Your task to perform on an android device: turn on bluetooth scan Image 0: 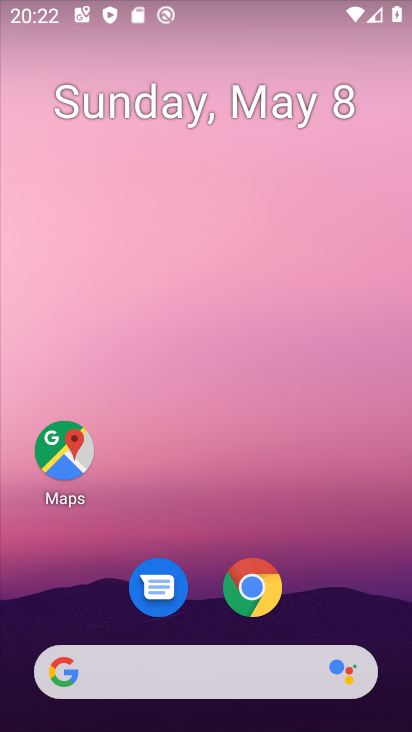
Step 0: drag from (223, 493) to (195, 5)
Your task to perform on an android device: turn on bluetooth scan Image 1: 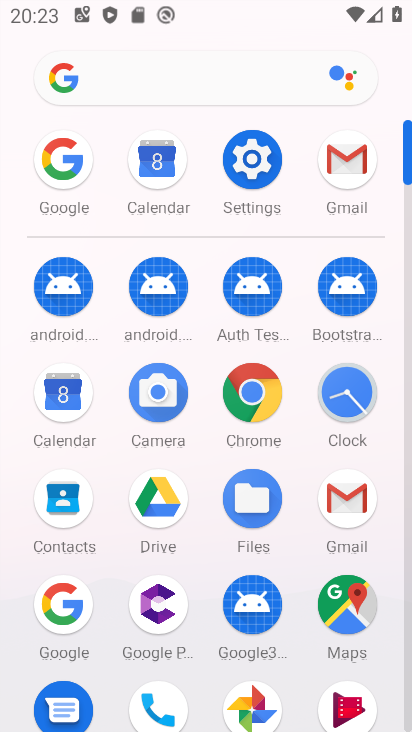
Step 1: click (251, 159)
Your task to perform on an android device: turn on bluetooth scan Image 2: 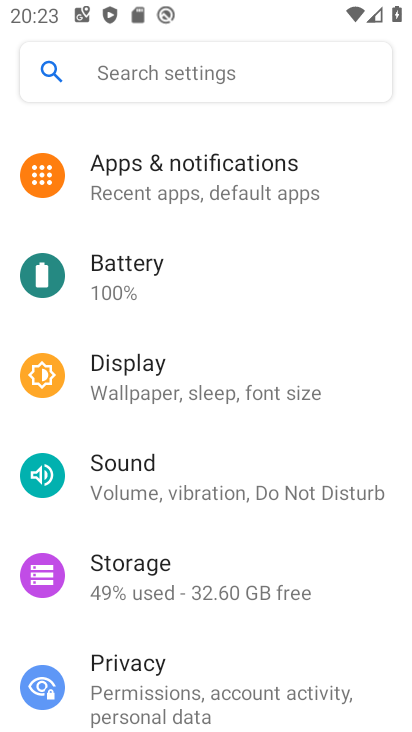
Step 2: drag from (162, 439) to (201, 325)
Your task to perform on an android device: turn on bluetooth scan Image 3: 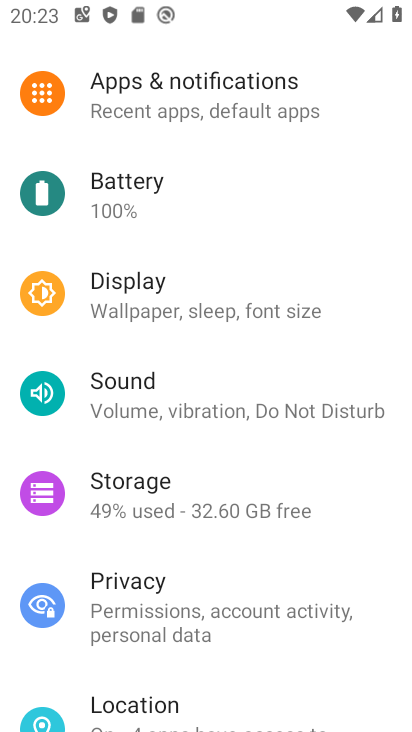
Step 3: drag from (183, 538) to (226, 462)
Your task to perform on an android device: turn on bluetooth scan Image 4: 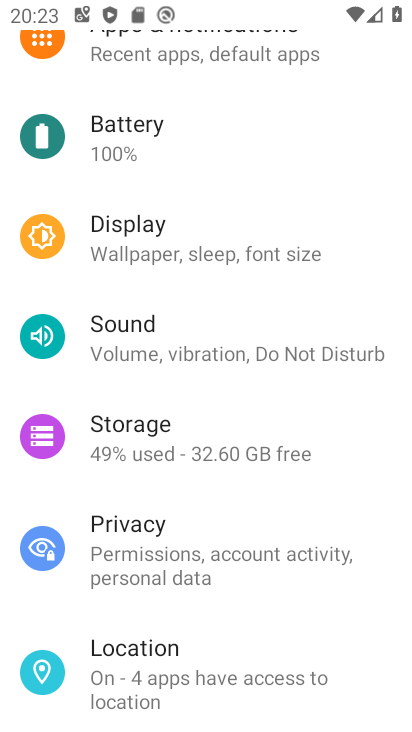
Step 4: drag from (203, 499) to (279, 390)
Your task to perform on an android device: turn on bluetooth scan Image 5: 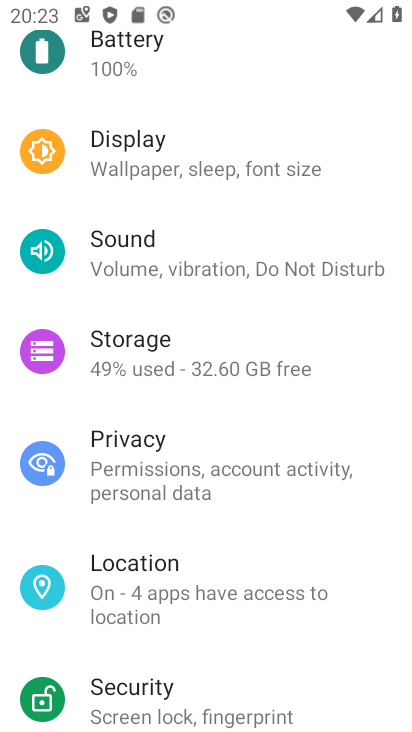
Step 5: drag from (187, 627) to (266, 505)
Your task to perform on an android device: turn on bluetooth scan Image 6: 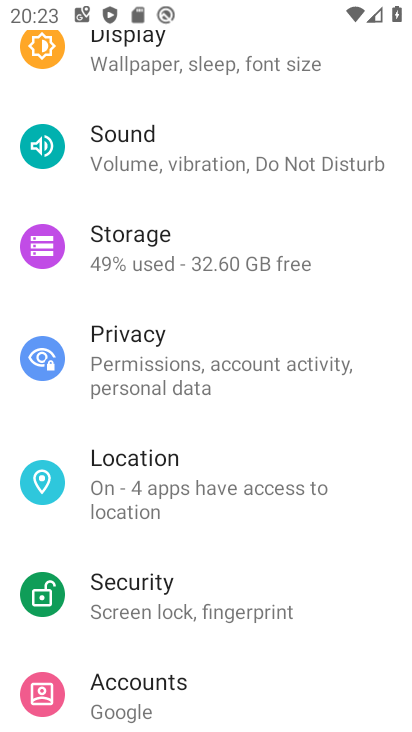
Step 6: click (157, 489)
Your task to perform on an android device: turn on bluetooth scan Image 7: 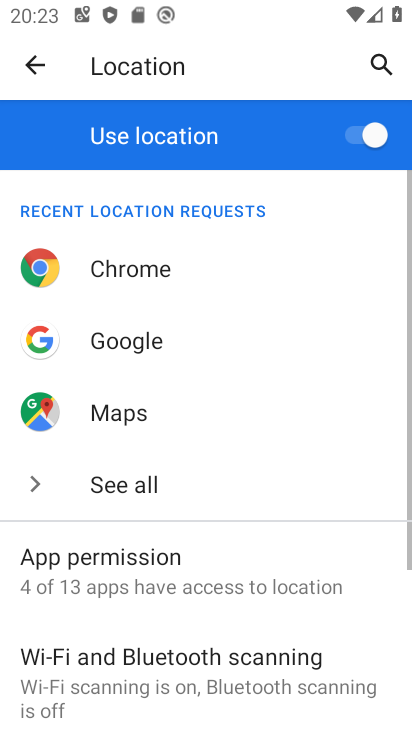
Step 7: click (230, 669)
Your task to perform on an android device: turn on bluetooth scan Image 8: 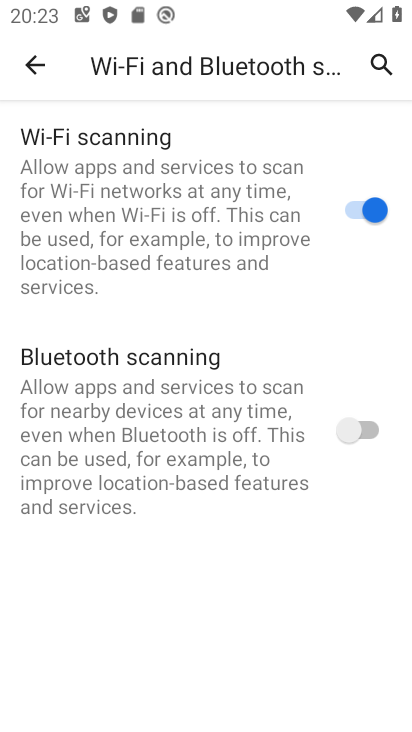
Step 8: click (354, 423)
Your task to perform on an android device: turn on bluetooth scan Image 9: 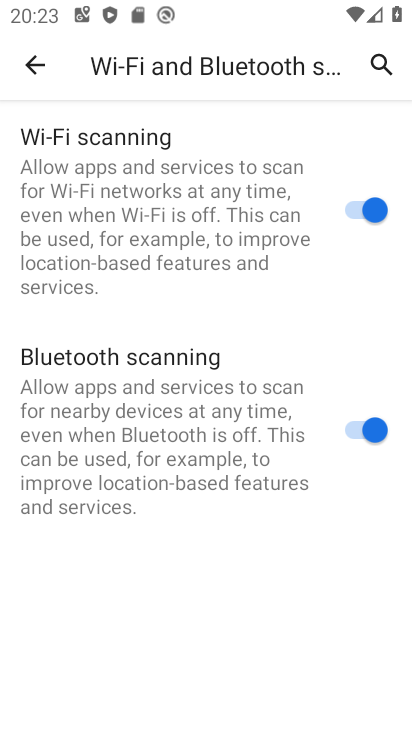
Step 9: task complete